Your task to perform on an android device: open a bookmark in the chrome app Image 0: 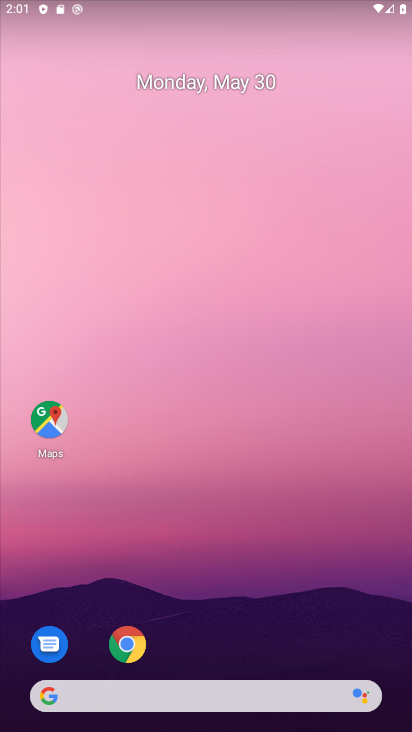
Step 0: press home button
Your task to perform on an android device: open a bookmark in the chrome app Image 1: 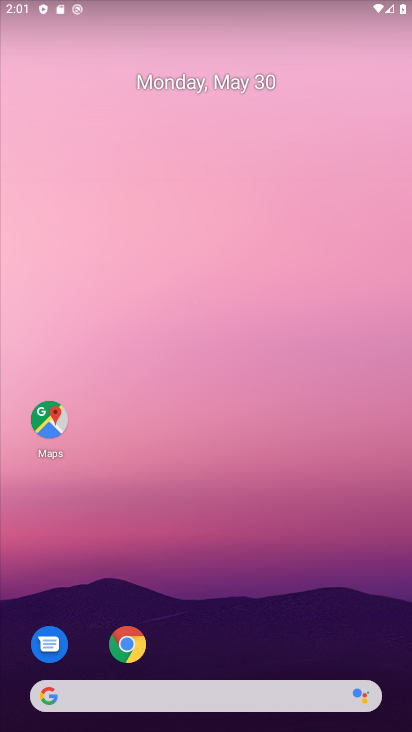
Step 1: click (121, 652)
Your task to perform on an android device: open a bookmark in the chrome app Image 2: 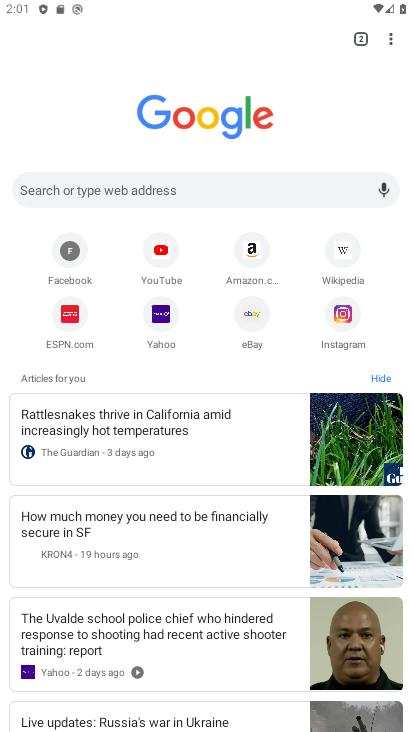
Step 2: click (394, 38)
Your task to perform on an android device: open a bookmark in the chrome app Image 3: 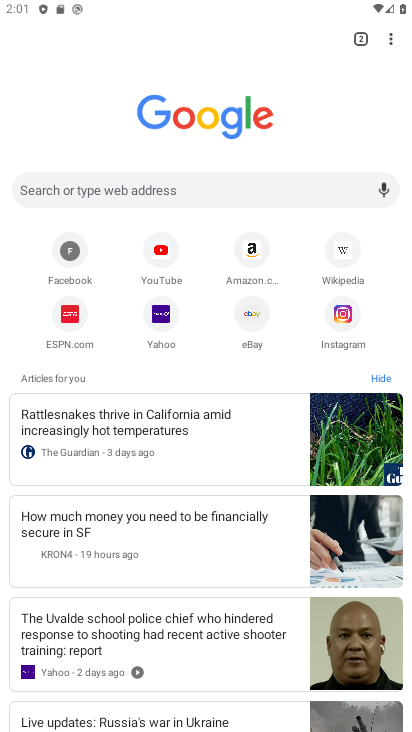
Step 3: task complete